Your task to perform on an android device: Empty the shopping cart on walmart.com. Add "jbl flip 4" to the cart on walmart.com Image 0: 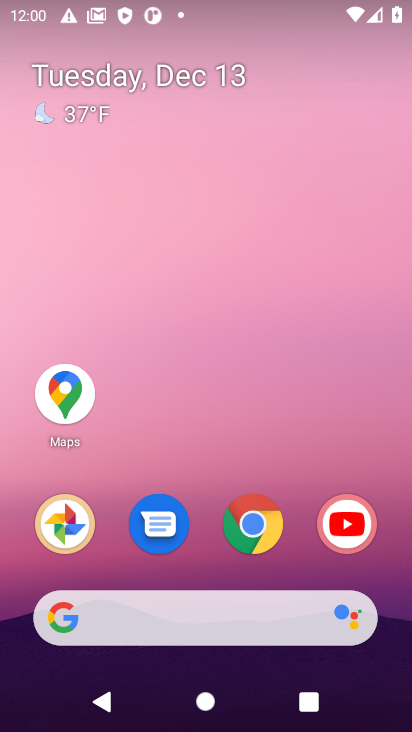
Step 0: click (253, 527)
Your task to perform on an android device: Empty the shopping cart on walmart.com. Add "jbl flip 4" to the cart on walmart.com Image 1: 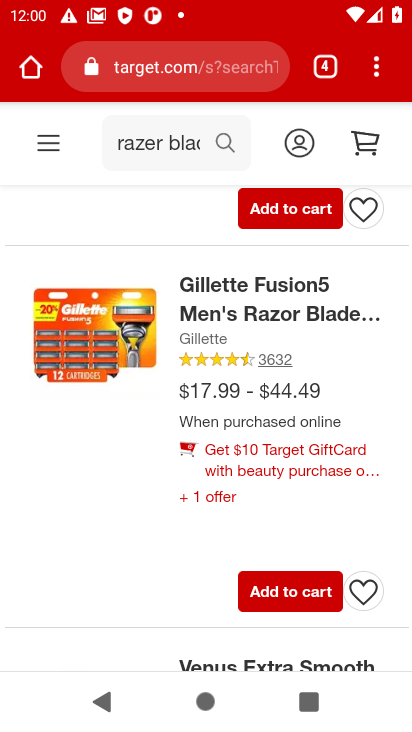
Step 1: click (162, 76)
Your task to perform on an android device: Empty the shopping cart on walmart.com. Add "jbl flip 4" to the cart on walmart.com Image 2: 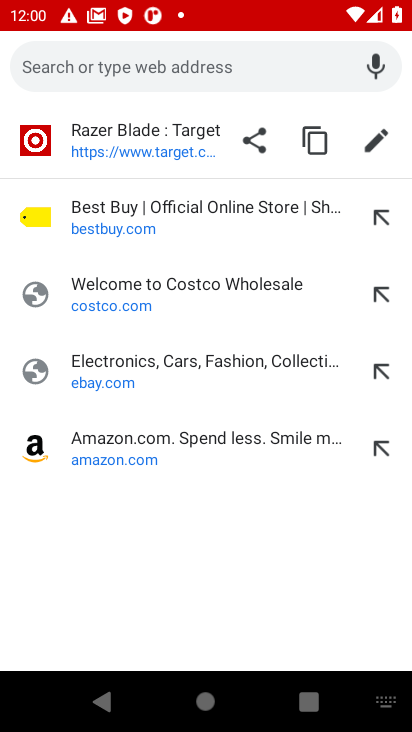
Step 2: type "walmart.com"
Your task to perform on an android device: Empty the shopping cart on walmart.com. Add "jbl flip 4" to the cart on walmart.com Image 3: 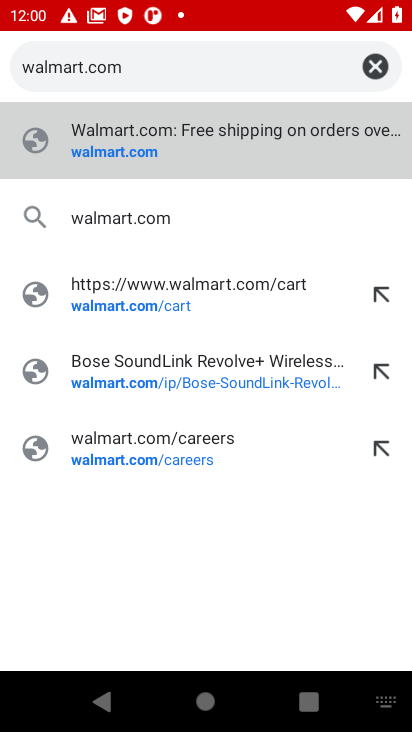
Step 3: click (127, 159)
Your task to perform on an android device: Empty the shopping cart on walmart.com. Add "jbl flip 4" to the cart on walmart.com Image 4: 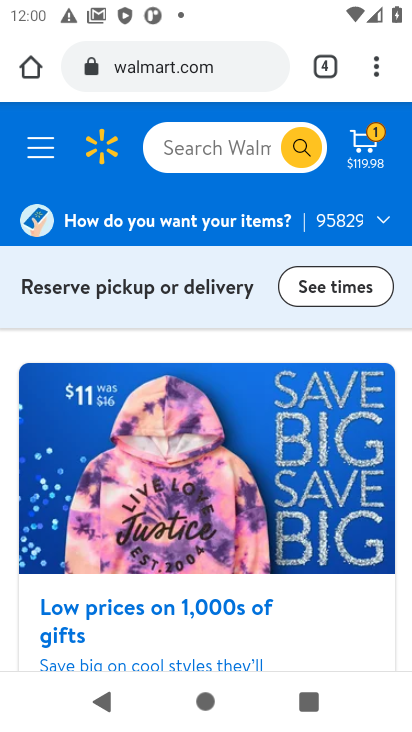
Step 4: click (364, 154)
Your task to perform on an android device: Empty the shopping cart on walmart.com. Add "jbl flip 4" to the cart on walmart.com Image 5: 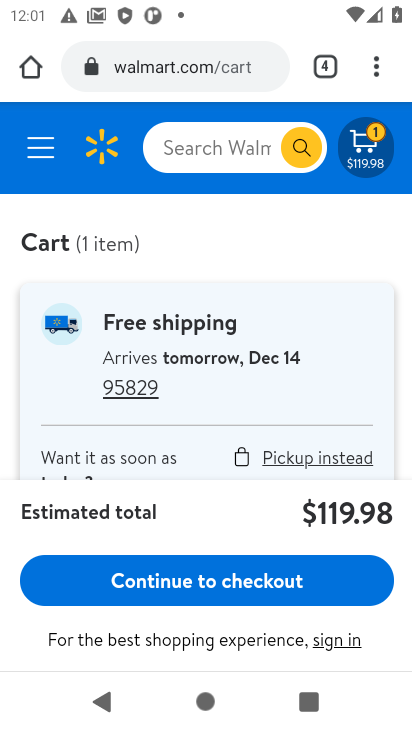
Step 5: drag from (318, 386) to (326, 152)
Your task to perform on an android device: Empty the shopping cart on walmart.com. Add "jbl flip 4" to the cart on walmart.com Image 6: 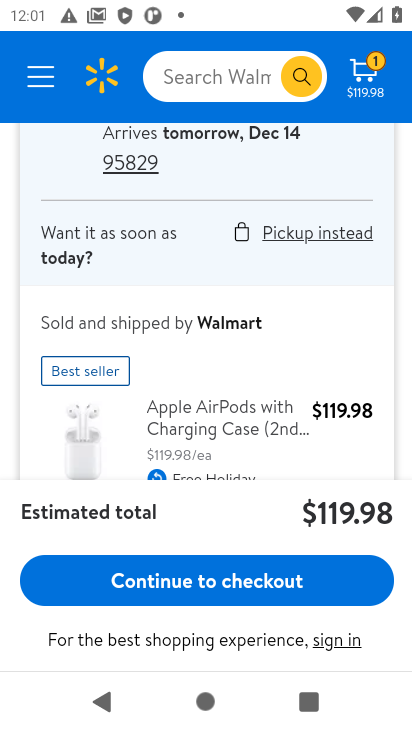
Step 6: drag from (292, 419) to (296, 132)
Your task to perform on an android device: Empty the shopping cart on walmart.com. Add "jbl flip 4" to the cart on walmart.com Image 7: 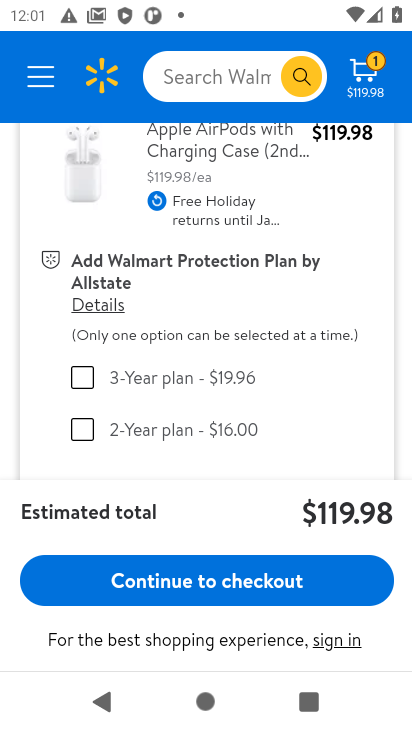
Step 7: drag from (226, 401) to (231, 158)
Your task to perform on an android device: Empty the shopping cart on walmart.com. Add "jbl flip 4" to the cart on walmart.com Image 8: 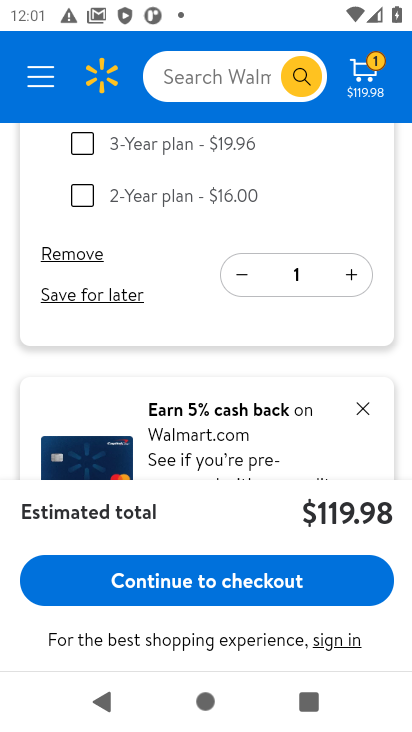
Step 8: drag from (214, 426) to (217, 176)
Your task to perform on an android device: Empty the shopping cart on walmart.com. Add "jbl flip 4" to the cart on walmart.com Image 9: 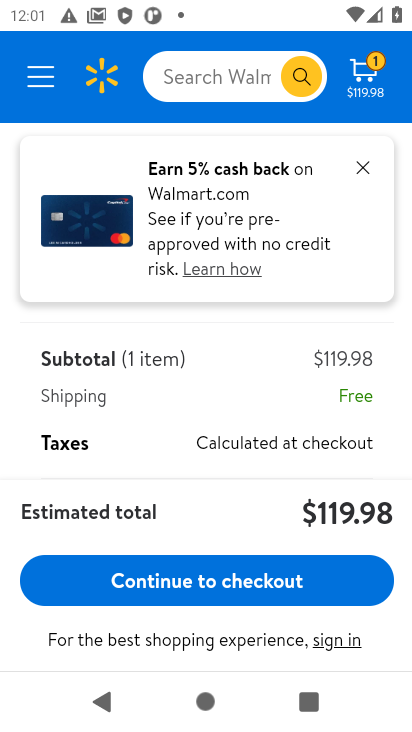
Step 9: drag from (187, 384) to (200, 169)
Your task to perform on an android device: Empty the shopping cart on walmart.com. Add "jbl flip 4" to the cart on walmart.com Image 10: 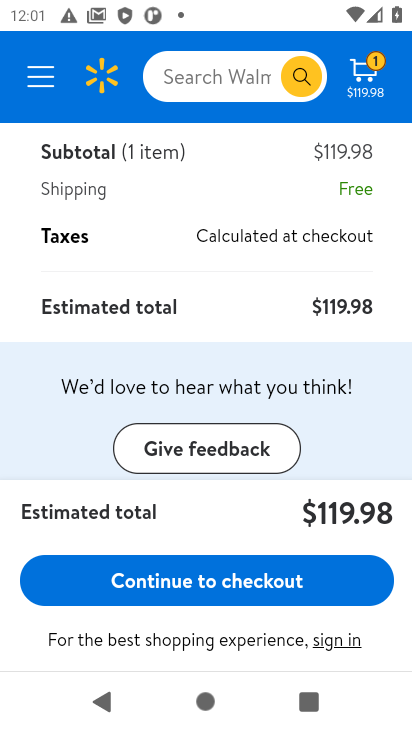
Step 10: drag from (183, 377) to (190, 145)
Your task to perform on an android device: Empty the shopping cart on walmart.com. Add "jbl flip 4" to the cart on walmart.com Image 11: 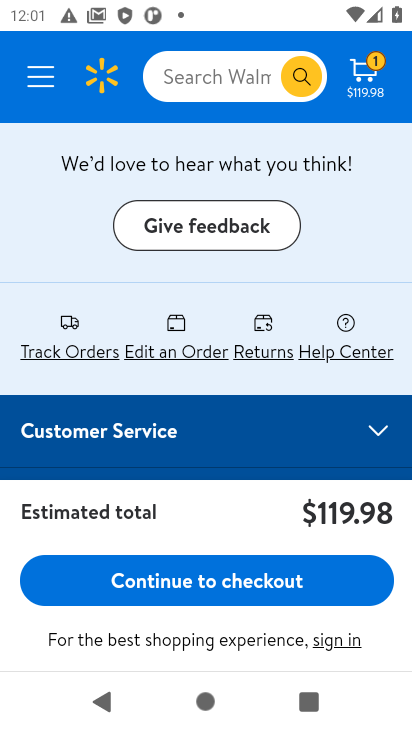
Step 11: drag from (161, 394) to (174, 157)
Your task to perform on an android device: Empty the shopping cart on walmart.com. Add "jbl flip 4" to the cart on walmart.com Image 12: 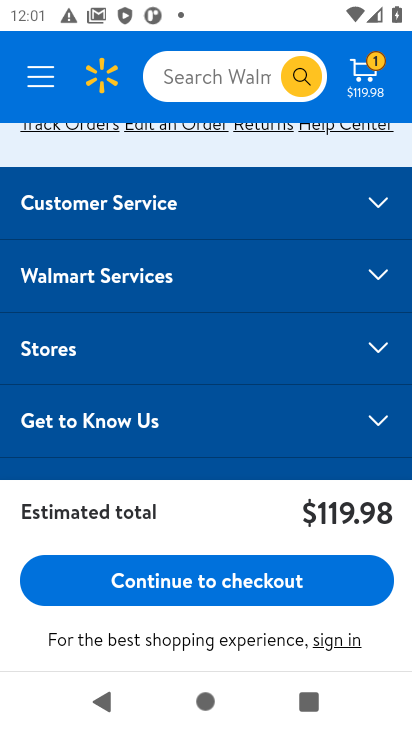
Step 12: drag from (167, 227) to (181, 543)
Your task to perform on an android device: Empty the shopping cart on walmart.com. Add "jbl flip 4" to the cart on walmart.com Image 13: 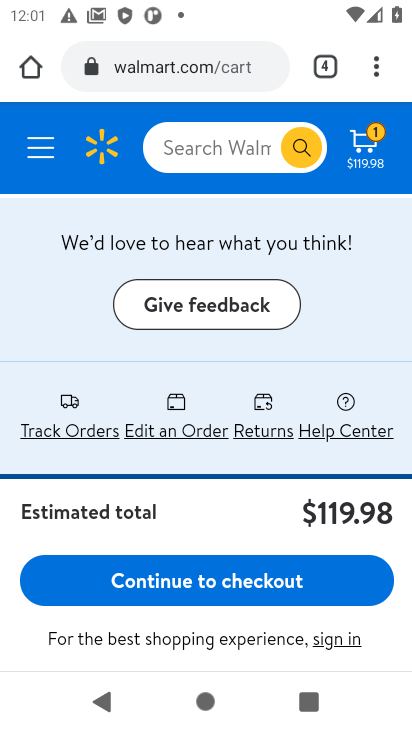
Step 13: click (322, 528)
Your task to perform on an android device: Empty the shopping cart on walmart.com. Add "jbl flip 4" to the cart on walmart.com Image 14: 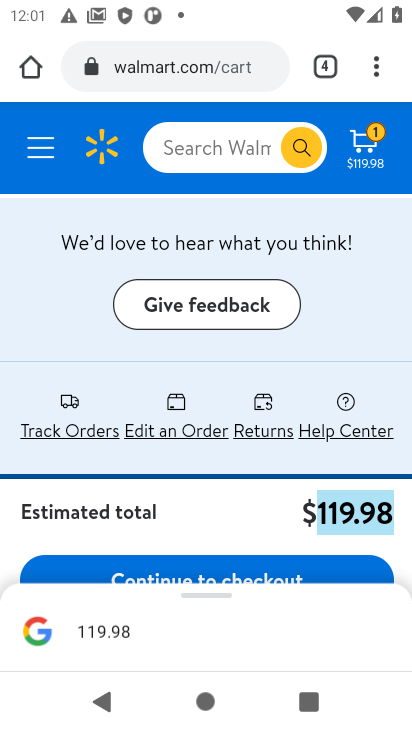
Step 14: drag from (328, 292) to (325, 379)
Your task to perform on an android device: Empty the shopping cart on walmart.com. Add "jbl flip 4" to the cart on walmart.com Image 15: 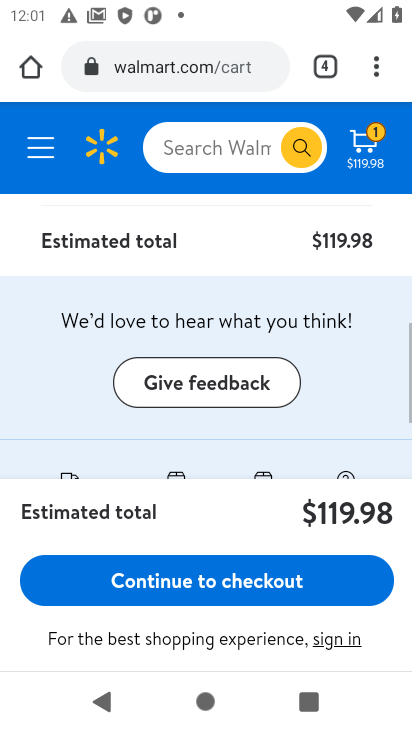
Step 15: drag from (316, 412) to (290, 514)
Your task to perform on an android device: Empty the shopping cart on walmart.com. Add "jbl flip 4" to the cart on walmart.com Image 16: 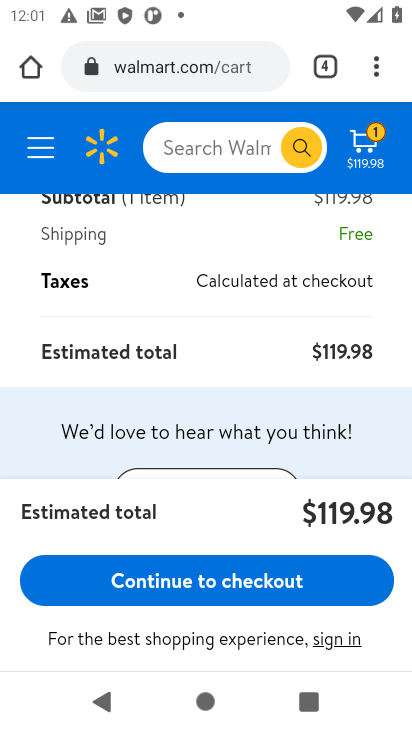
Step 16: drag from (137, 264) to (125, 523)
Your task to perform on an android device: Empty the shopping cart on walmart.com. Add "jbl flip 4" to the cart on walmart.com Image 17: 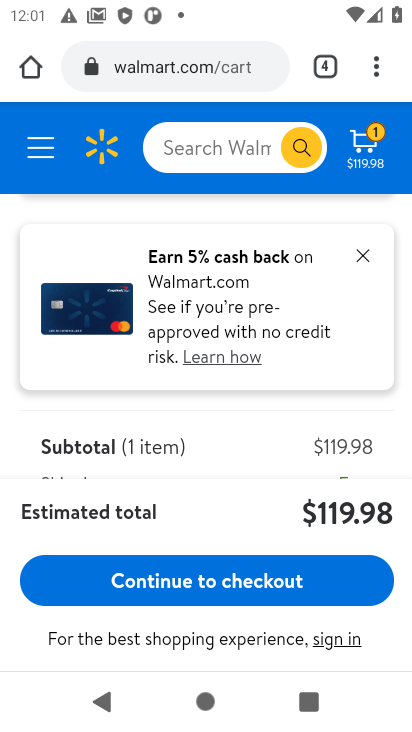
Step 17: drag from (131, 393) to (144, 448)
Your task to perform on an android device: Empty the shopping cart on walmart.com. Add "jbl flip 4" to the cart on walmart.com Image 18: 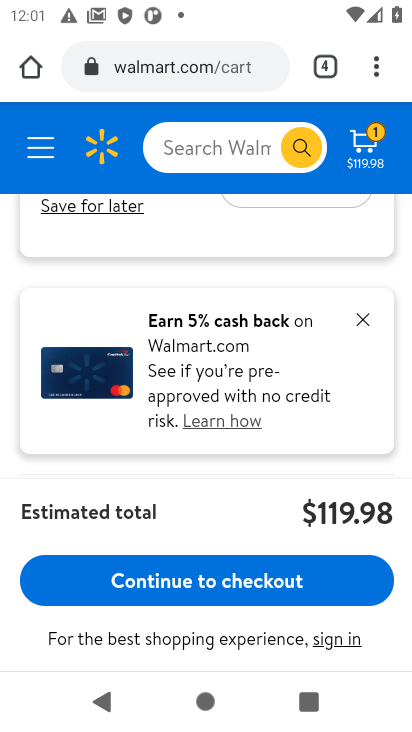
Step 18: drag from (100, 262) to (106, 413)
Your task to perform on an android device: Empty the shopping cart on walmart.com. Add "jbl flip 4" to the cart on walmart.com Image 19: 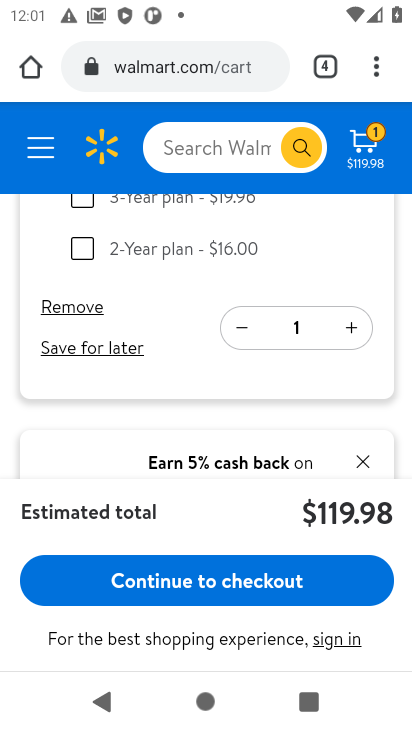
Step 19: click (81, 310)
Your task to perform on an android device: Empty the shopping cart on walmart.com. Add "jbl flip 4" to the cart on walmart.com Image 20: 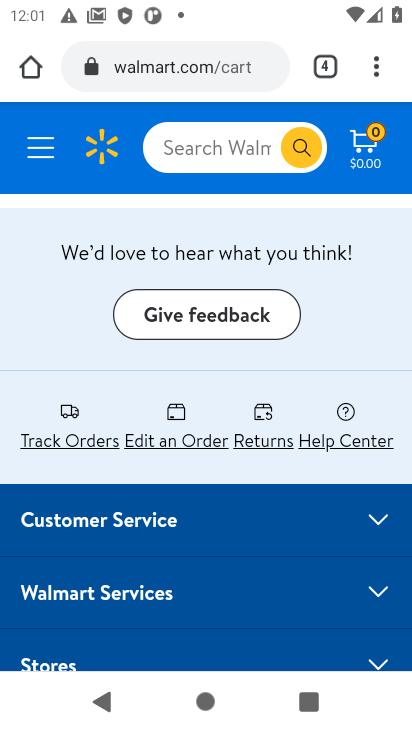
Step 20: click (185, 153)
Your task to perform on an android device: Empty the shopping cart on walmart.com. Add "jbl flip 4" to the cart on walmart.com Image 21: 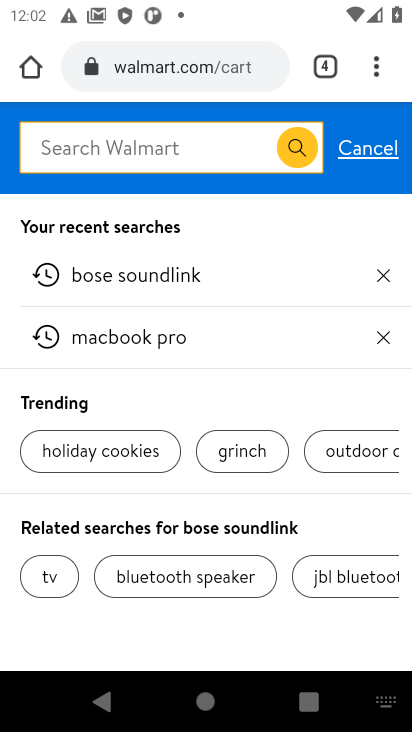
Step 21: type "jbl flip 4"
Your task to perform on an android device: Empty the shopping cart on walmart.com. Add "jbl flip 4" to the cart on walmart.com Image 22: 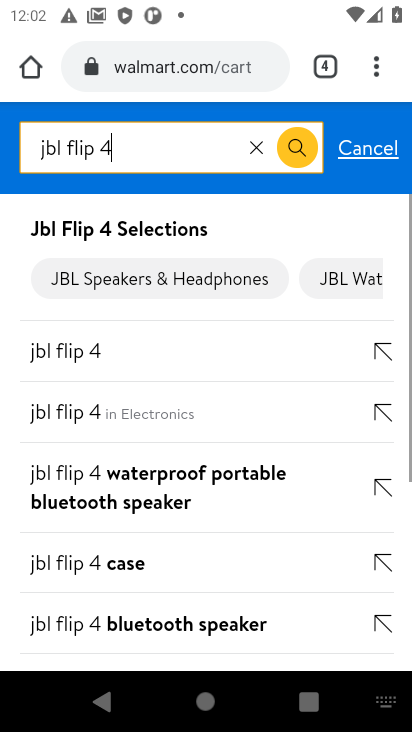
Step 22: click (79, 350)
Your task to perform on an android device: Empty the shopping cart on walmart.com. Add "jbl flip 4" to the cart on walmart.com Image 23: 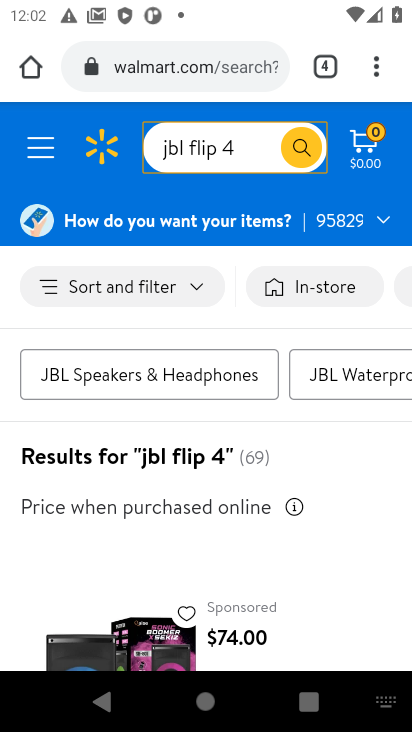
Step 23: drag from (174, 476) to (175, 246)
Your task to perform on an android device: Empty the shopping cart on walmart.com. Add "jbl flip 4" to the cart on walmart.com Image 24: 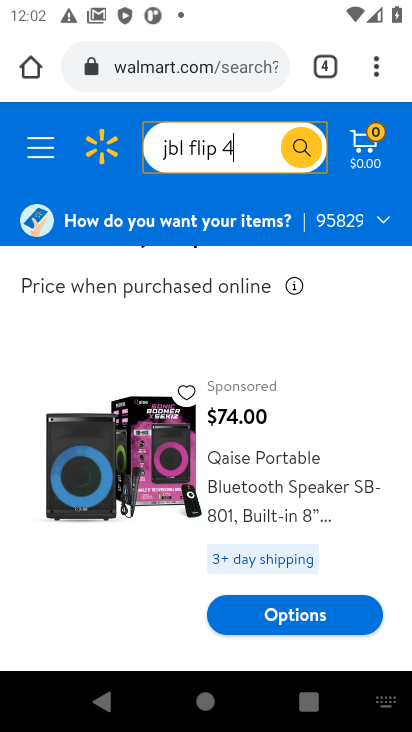
Step 24: drag from (176, 474) to (177, 233)
Your task to perform on an android device: Empty the shopping cart on walmart.com. Add "jbl flip 4" to the cart on walmart.com Image 25: 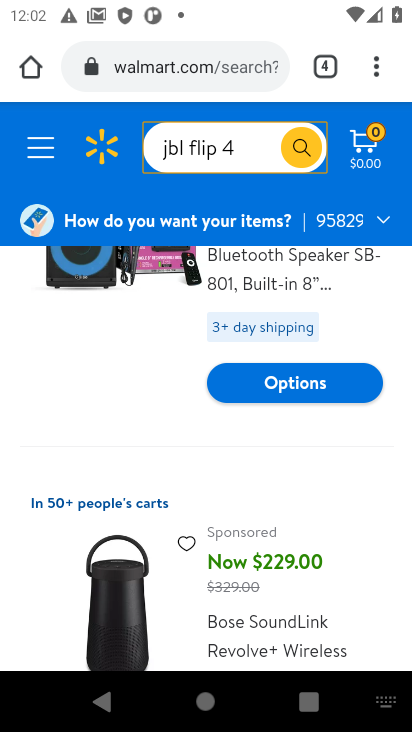
Step 25: drag from (147, 472) to (162, 222)
Your task to perform on an android device: Empty the shopping cart on walmart.com. Add "jbl flip 4" to the cart on walmart.com Image 26: 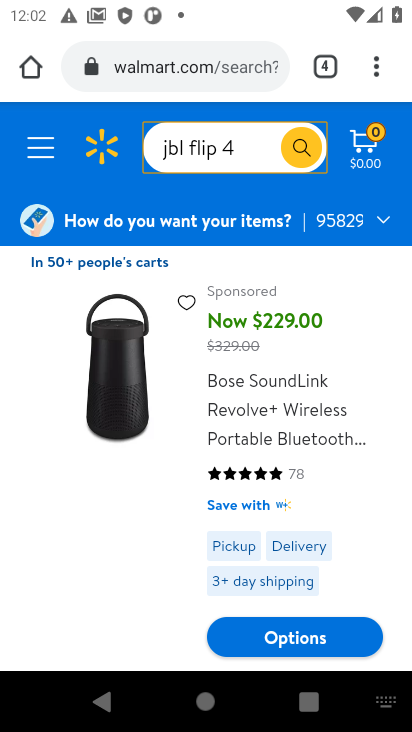
Step 26: drag from (146, 502) to (147, 199)
Your task to perform on an android device: Empty the shopping cart on walmart.com. Add "jbl flip 4" to the cart on walmart.com Image 27: 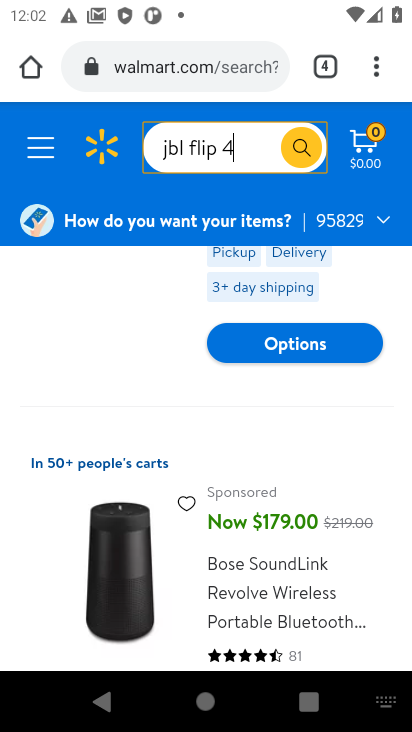
Step 27: drag from (132, 515) to (142, 196)
Your task to perform on an android device: Empty the shopping cart on walmart.com. Add "jbl flip 4" to the cart on walmart.com Image 28: 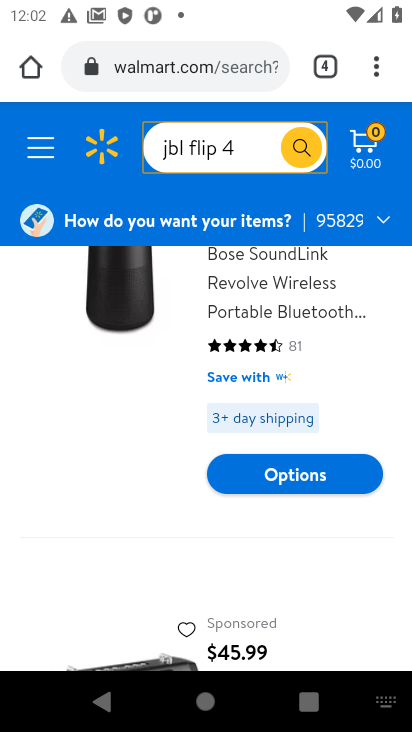
Step 28: drag from (143, 487) to (137, 208)
Your task to perform on an android device: Empty the shopping cart on walmart.com. Add "jbl flip 4" to the cart on walmart.com Image 29: 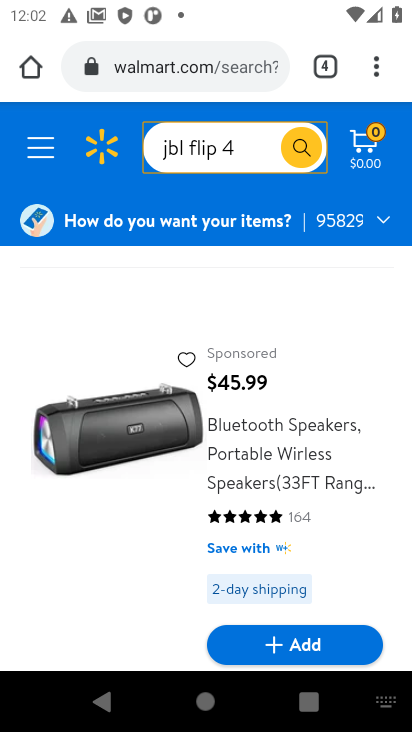
Step 29: drag from (126, 498) to (125, 194)
Your task to perform on an android device: Empty the shopping cart on walmart.com. Add "jbl flip 4" to the cart on walmart.com Image 30: 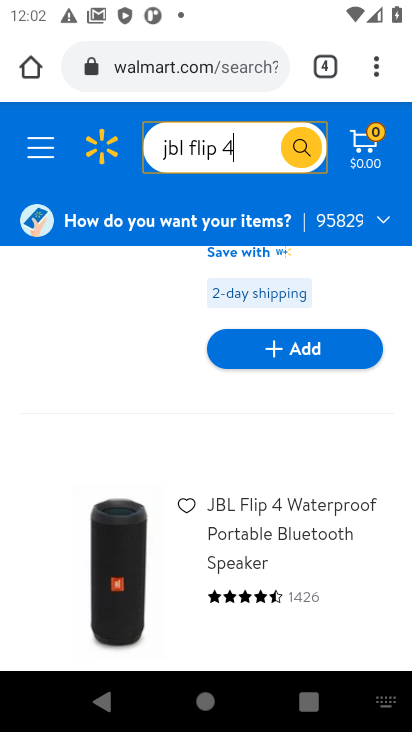
Step 30: drag from (178, 566) to (177, 313)
Your task to perform on an android device: Empty the shopping cart on walmart.com. Add "jbl flip 4" to the cart on walmart.com Image 31: 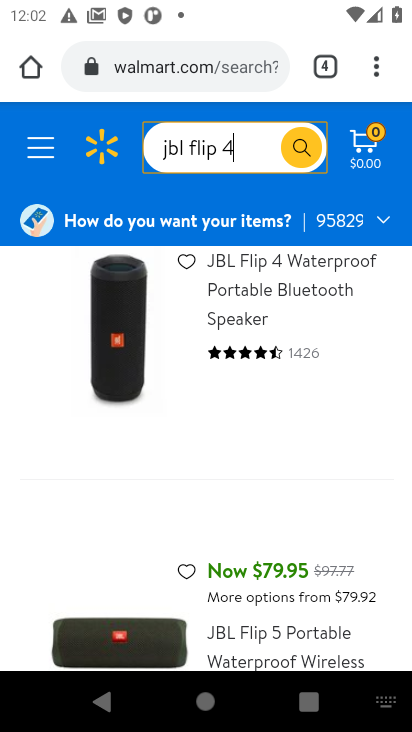
Step 31: drag from (176, 408) to (183, 527)
Your task to perform on an android device: Empty the shopping cart on walmart.com. Add "jbl flip 4" to the cart on walmart.com Image 32: 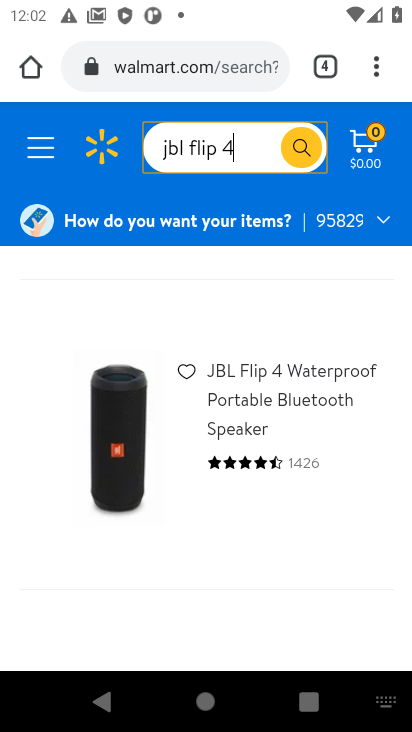
Step 32: click (258, 389)
Your task to perform on an android device: Empty the shopping cart on walmart.com. Add "jbl flip 4" to the cart on walmart.com Image 33: 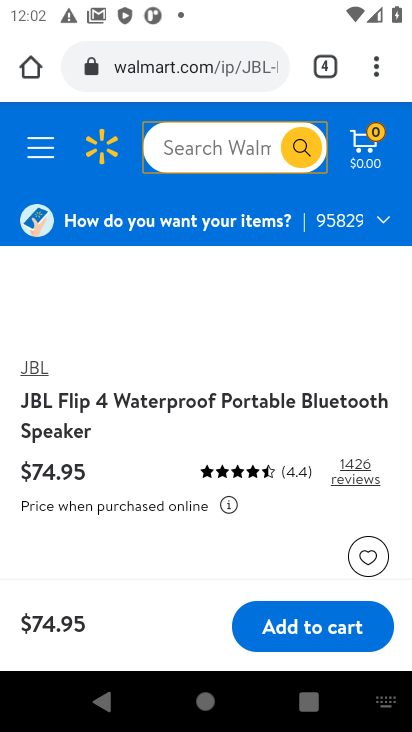
Step 33: click (311, 629)
Your task to perform on an android device: Empty the shopping cart on walmart.com. Add "jbl flip 4" to the cart on walmart.com Image 34: 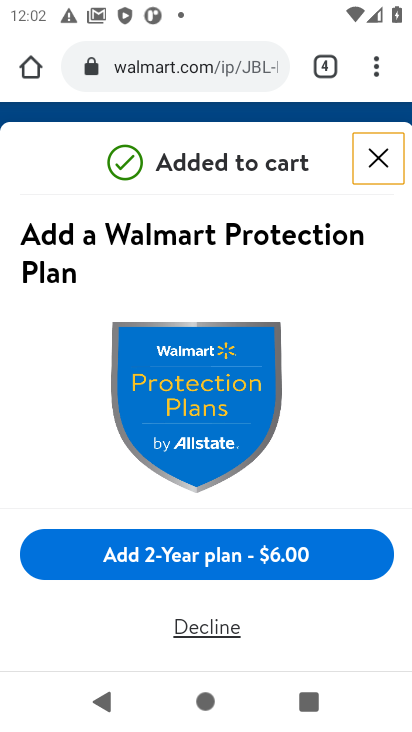
Step 34: task complete